Your task to perform on an android device: turn off smart reply in the gmail app Image 0: 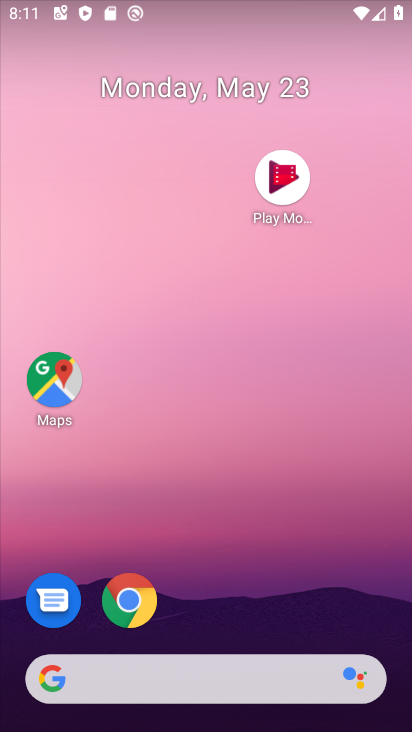
Step 0: drag from (288, 713) to (231, 18)
Your task to perform on an android device: turn off smart reply in the gmail app Image 1: 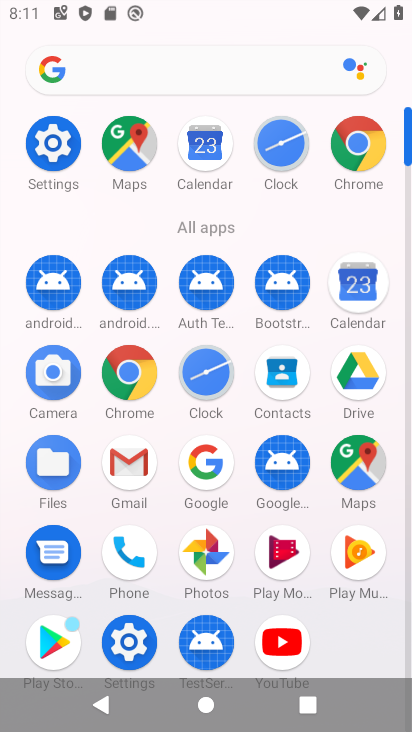
Step 1: drag from (231, 554) to (174, 222)
Your task to perform on an android device: turn off smart reply in the gmail app Image 2: 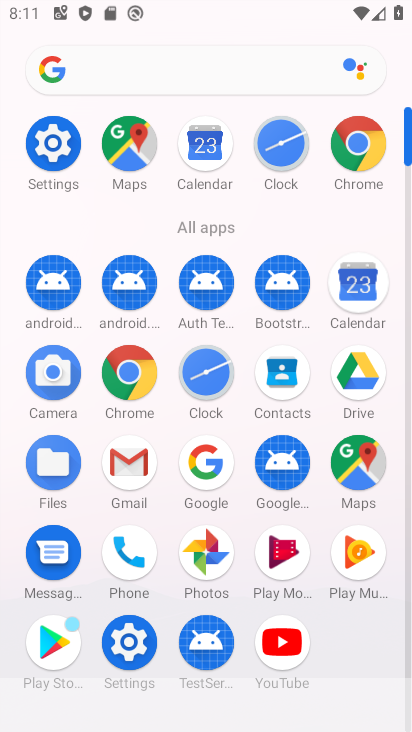
Step 2: click (129, 453)
Your task to perform on an android device: turn off smart reply in the gmail app Image 3: 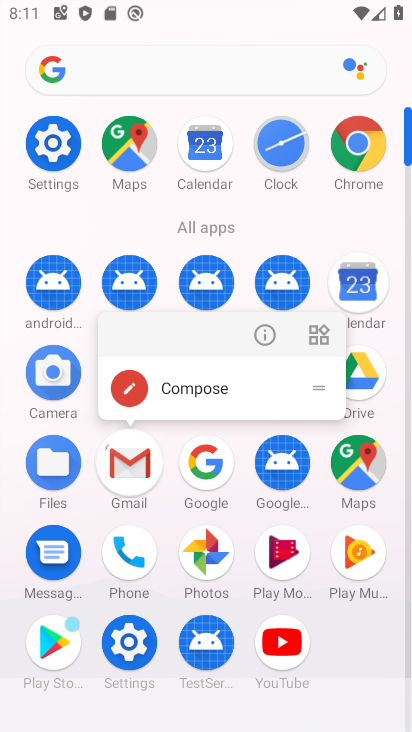
Step 3: click (126, 443)
Your task to perform on an android device: turn off smart reply in the gmail app Image 4: 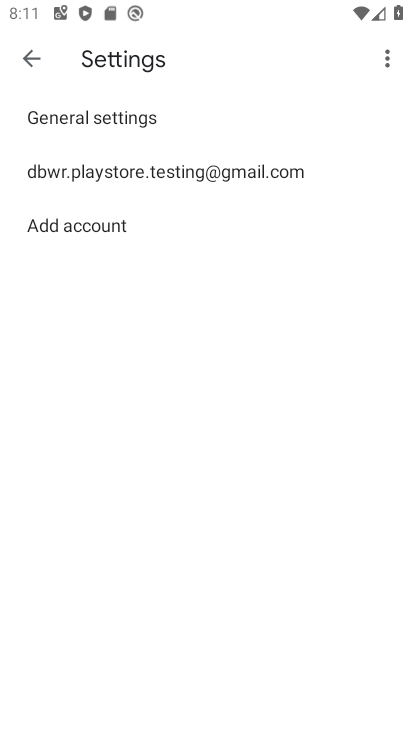
Step 4: click (134, 448)
Your task to perform on an android device: turn off smart reply in the gmail app Image 5: 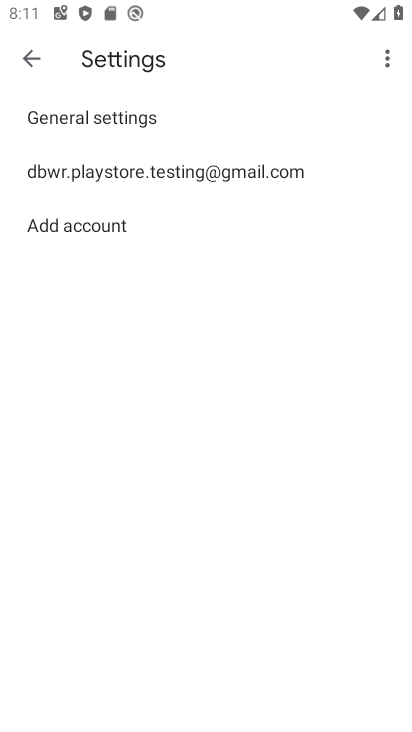
Step 5: click (98, 161)
Your task to perform on an android device: turn off smart reply in the gmail app Image 6: 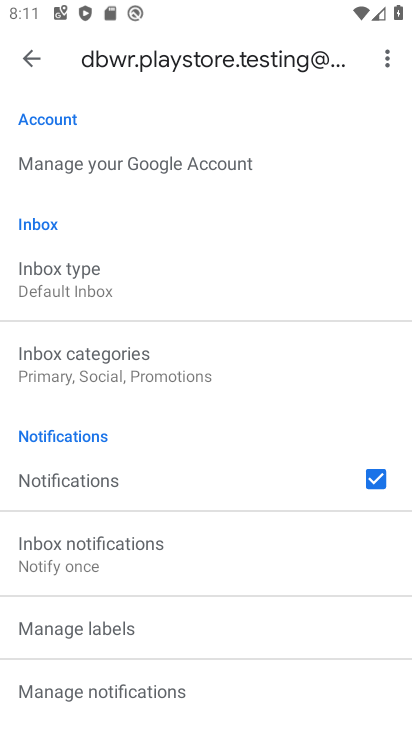
Step 6: drag from (109, 584) to (134, 56)
Your task to perform on an android device: turn off smart reply in the gmail app Image 7: 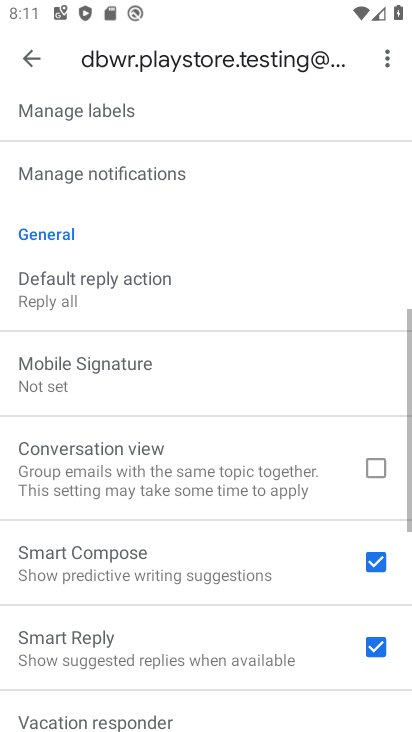
Step 7: drag from (170, 483) to (179, 145)
Your task to perform on an android device: turn off smart reply in the gmail app Image 8: 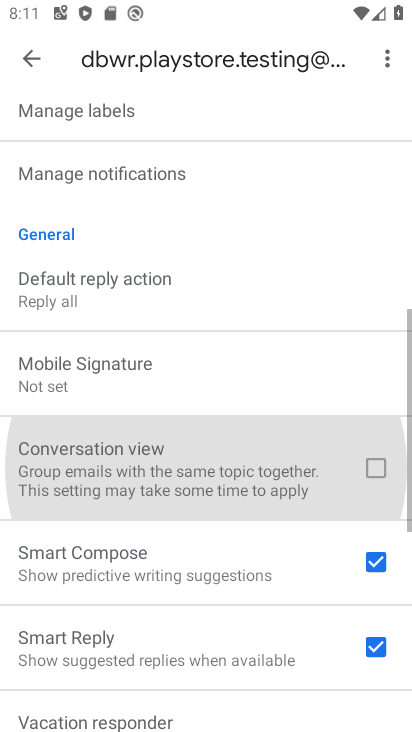
Step 8: drag from (237, 473) to (237, 90)
Your task to perform on an android device: turn off smart reply in the gmail app Image 9: 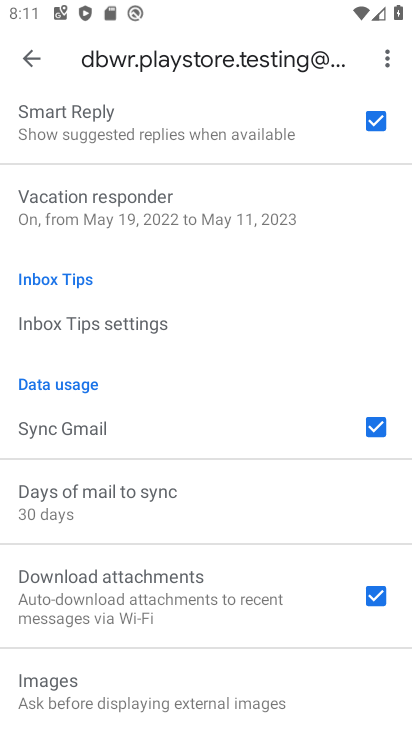
Step 9: click (379, 121)
Your task to perform on an android device: turn off smart reply in the gmail app Image 10: 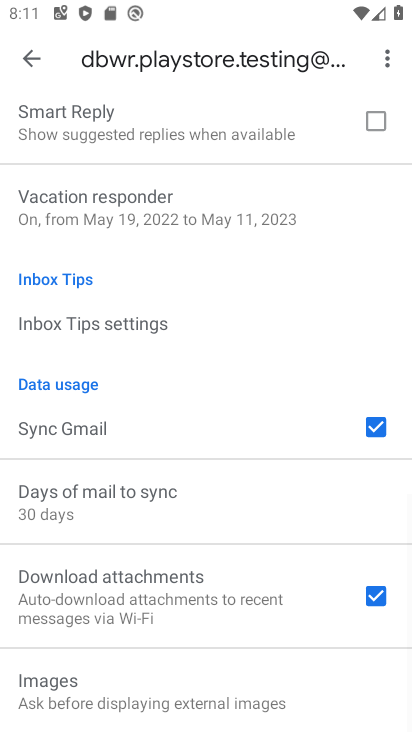
Step 10: task complete